Your task to perform on an android device: add a label to a message in the gmail app Image 0: 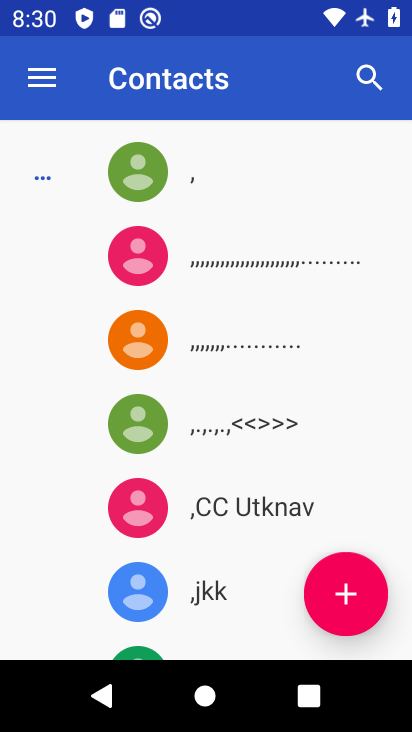
Step 0: press home button
Your task to perform on an android device: add a label to a message in the gmail app Image 1: 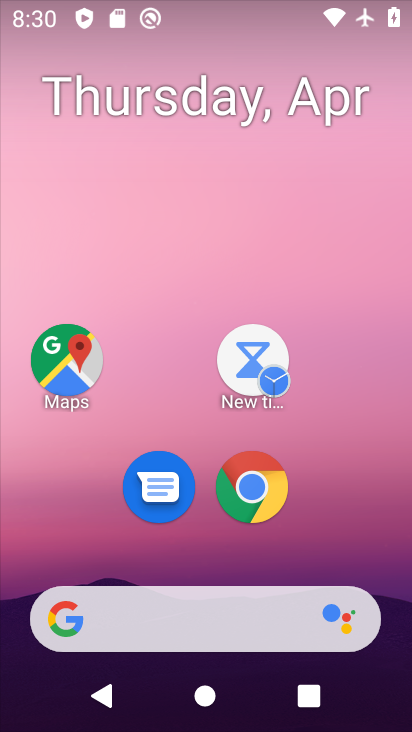
Step 1: drag from (367, 429) to (363, 85)
Your task to perform on an android device: add a label to a message in the gmail app Image 2: 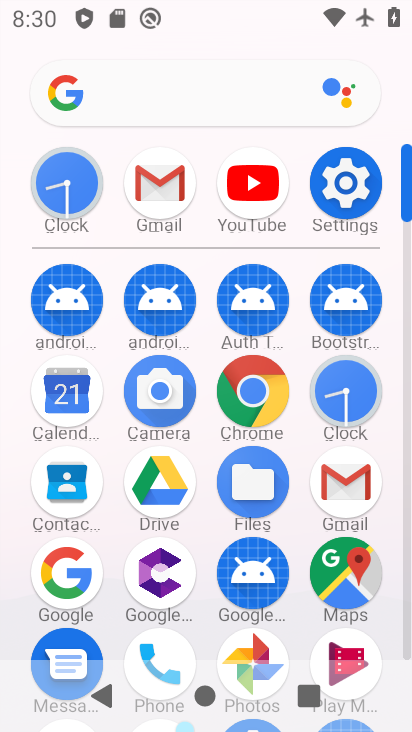
Step 2: click (341, 478)
Your task to perform on an android device: add a label to a message in the gmail app Image 3: 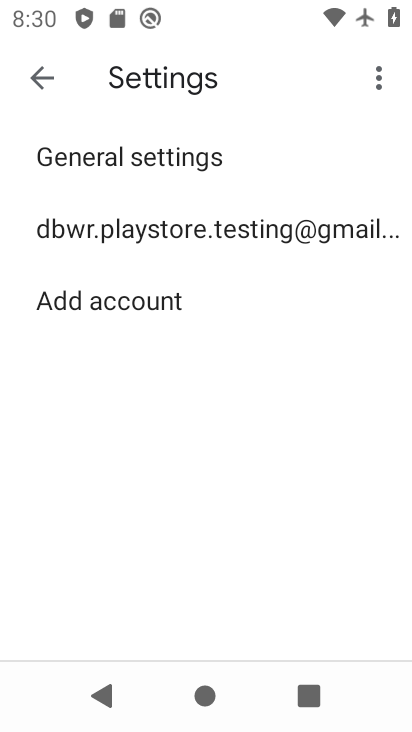
Step 3: click (44, 77)
Your task to perform on an android device: add a label to a message in the gmail app Image 4: 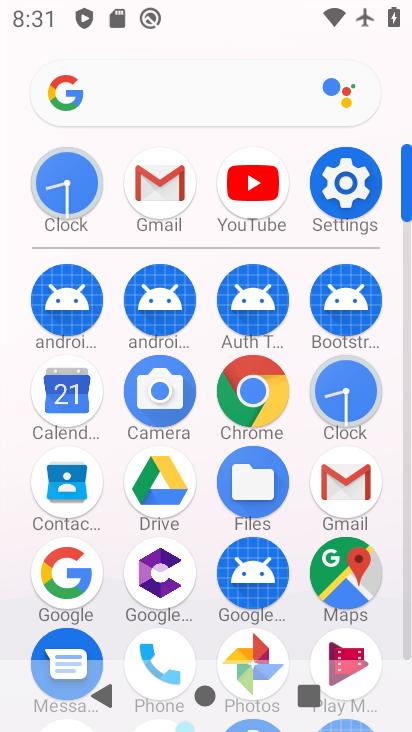
Step 4: click (172, 196)
Your task to perform on an android device: add a label to a message in the gmail app Image 5: 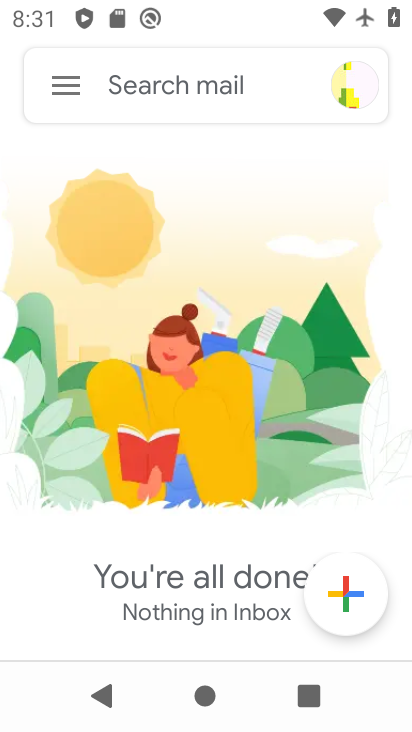
Step 5: click (69, 87)
Your task to perform on an android device: add a label to a message in the gmail app Image 6: 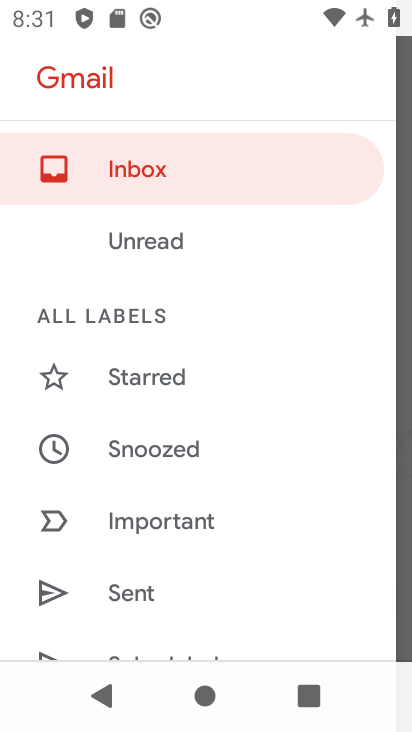
Step 6: task complete